Your task to perform on an android device: move a message to another label in the gmail app Image 0: 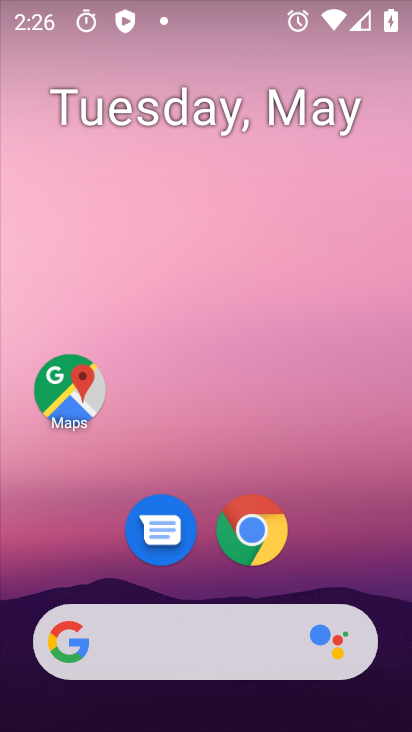
Step 0: drag from (215, 595) to (276, 36)
Your task to perform on an android device: move a message to another label in the gmail app Image 1: 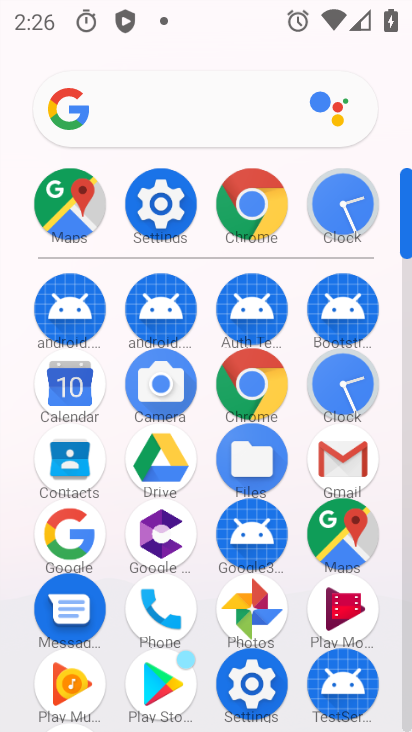
Step 1: click (353, 455)
Your task to perform on an android device: move a message to another label in the gmail app Image 2: 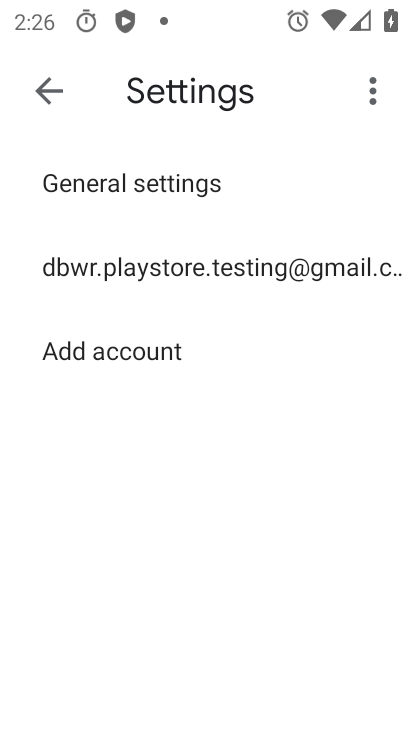
Step 2: click (47, 86)
Your task to perform on an android device: move a message to another label in the gmail app Image 3: 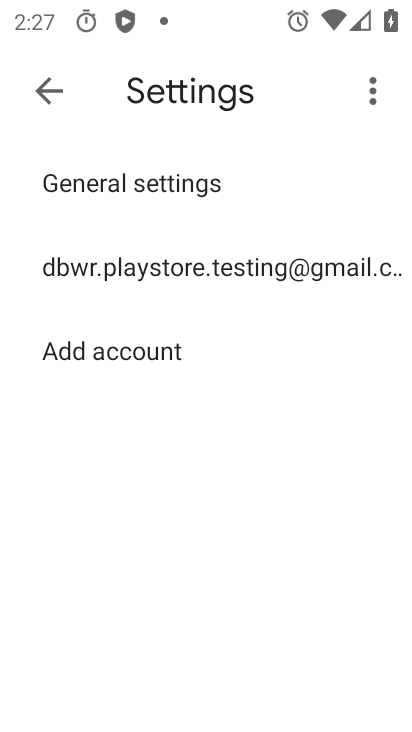
Step 3: task complete